Your task to perform on an android device: snooze an email in the gmail app Image 0: 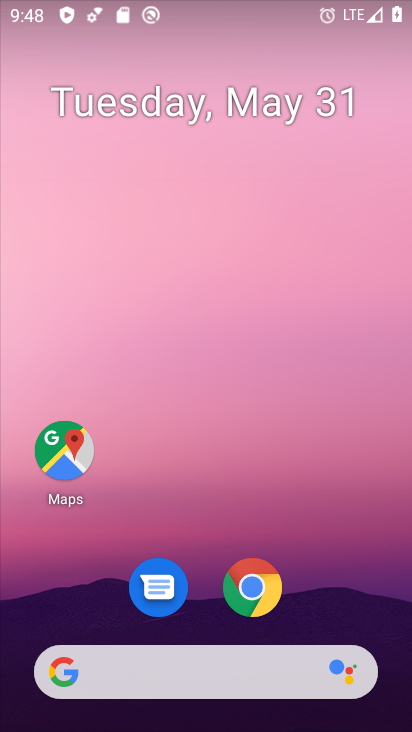
Step 0: drag from (372, 611) to (375, 232)
Your task to perform on an android device: snooze an email in the gmail app Image 1: 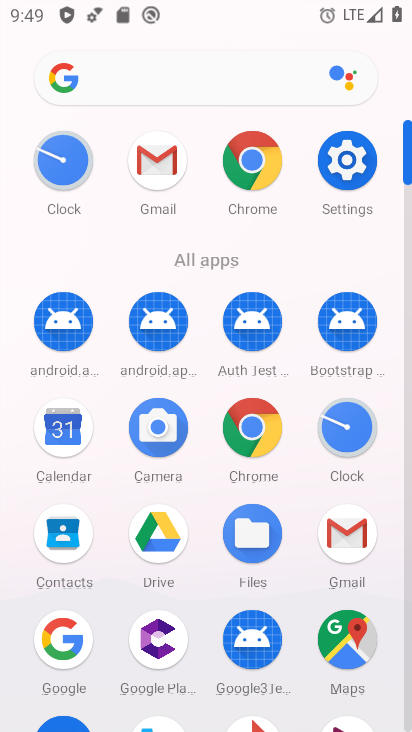
Step 1: click (354, 546)
Your task to perform on an android device: snooze an email in the gmail app Image 2: 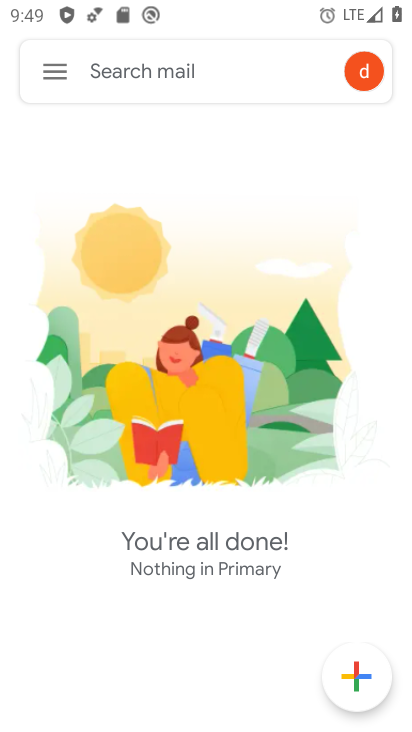
Step 2: click (50, 64)
Your task to perform on an android device: snooze an email in the gmail app Image 3: 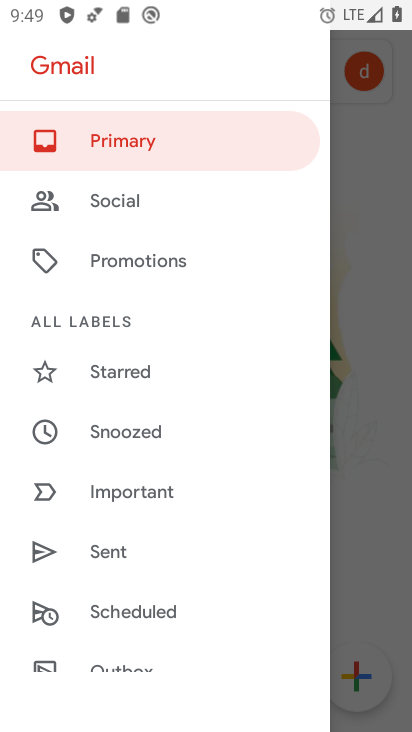
Step 3: drag from (256, 482) to (261, 344)
Your task to perform on an android device: snooze an email in the gmail app Image 4: 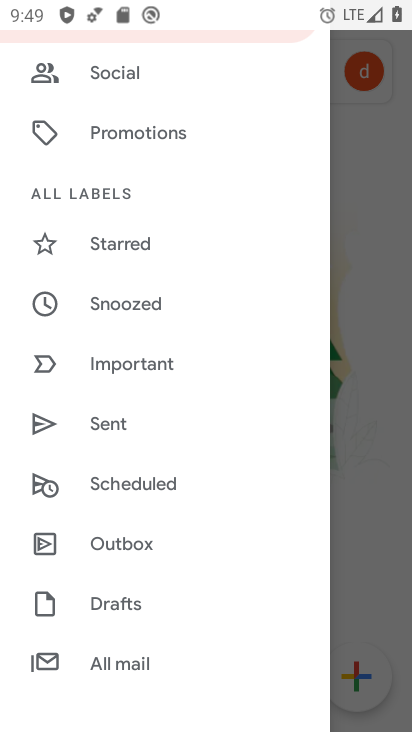
Step 4: drag from (252, 499) to (252, 319)
Your task to perform on an android device: snooze an email in the gmail app Image 5: 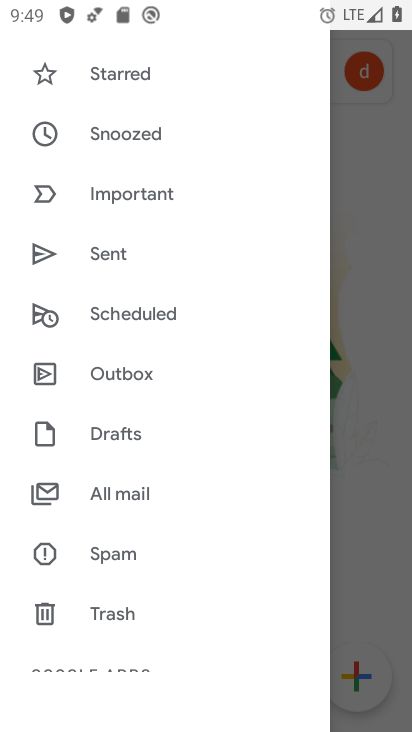
Step 5: drag from (246, 487) to (259, 351)
Your task to perform on an android device: snooze an email in the gmail app Image 6: 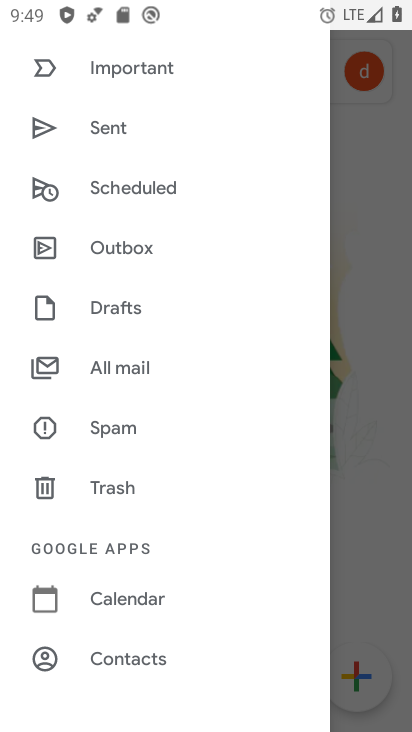
Step 6: drag from (254, 507) to (252, 350)
Your task to perform on an android device: snooze an email in the gmail app Image 7: 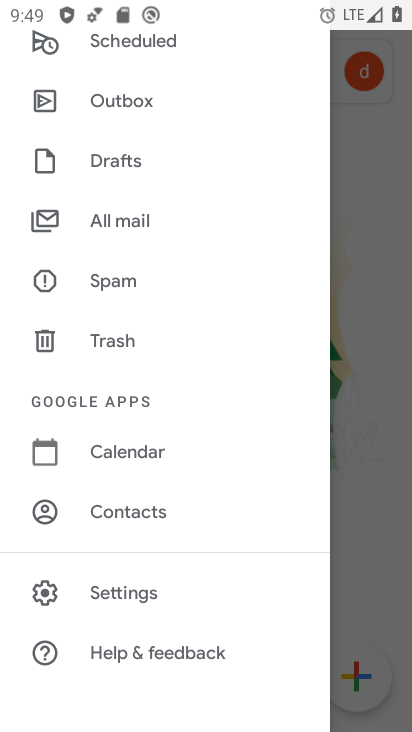
Step 7: drag from (236, 532) to (243, 386)
Your task to perform on an android device: snooze an email in the gmail app Image 8: 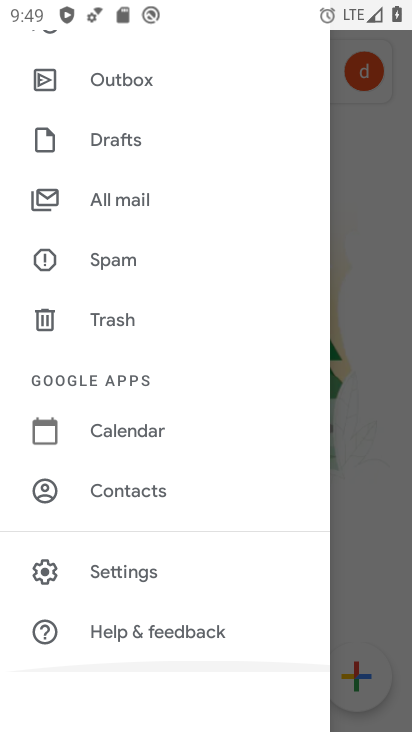
Step 8: drag from (252, 343) to (241, 444)
Your task to perform on an android device: snooze an email in the gmail app Image 9: 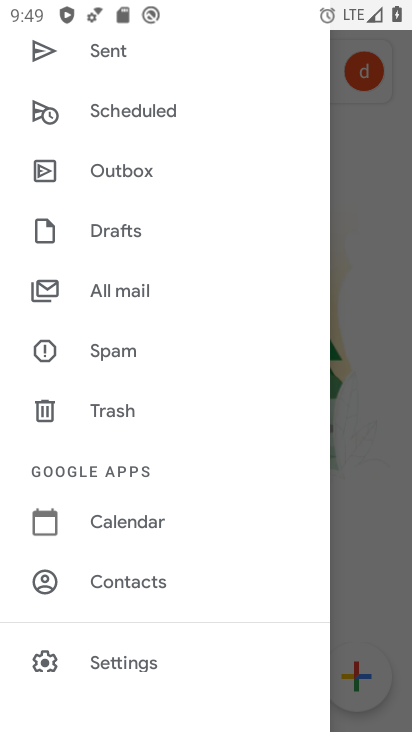
Step 9: drag from (257, 325) to (258, 417)
Your task to perform on an android device: snooze an email in the gmail app Image 10: 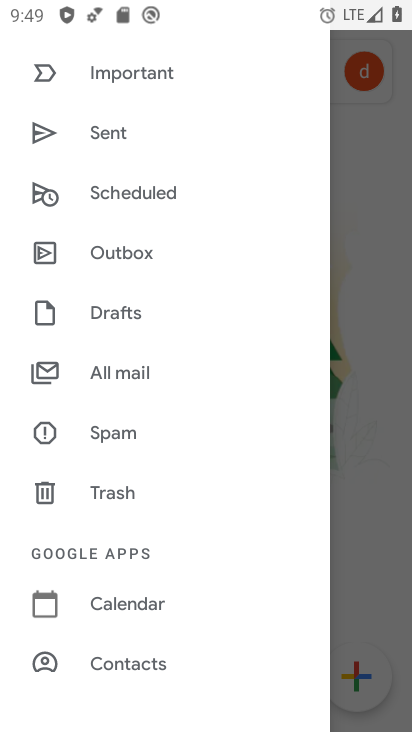
Step 10: drag from (261, 305) to (267, 410)
Your task to perform on an android device: snooze an email in the gmail app Image 11: 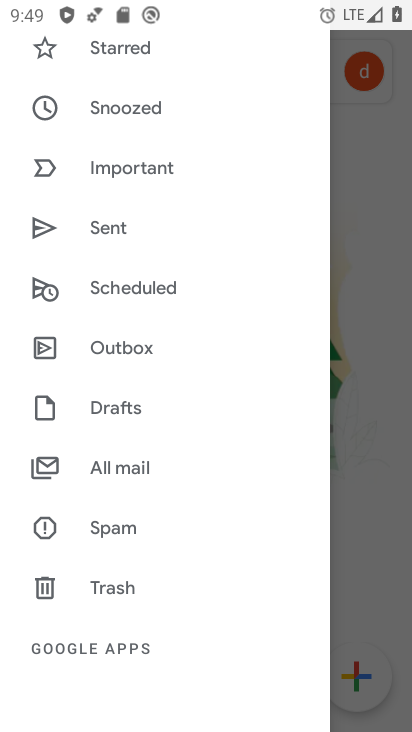
Step 11: drag from (255, 284) to (260, 406)
Your task to perform on an android device: snooze an email in the gmail app Image 12: 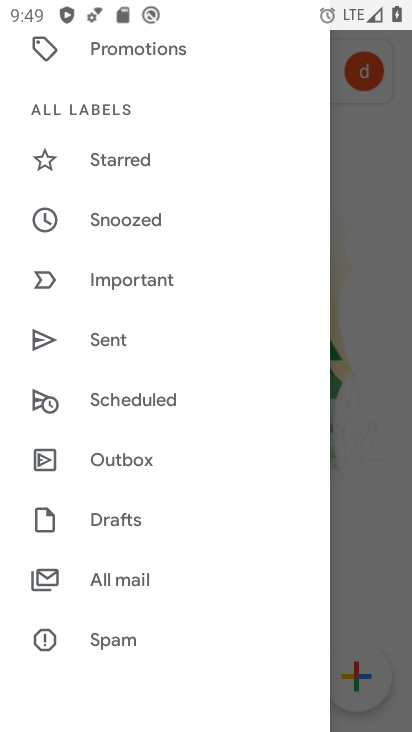
Step 12: drag from (244, 241) to (255, 486)
Your task to perform on an android device: snooze an email in the gmail app Image 13: 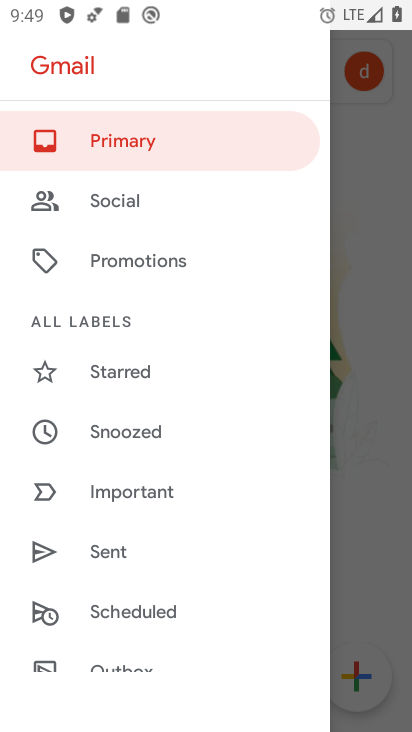
Step 13: click (192, 442)
Your task to perform on an android device: snooze an email in the gmail app Image 14: 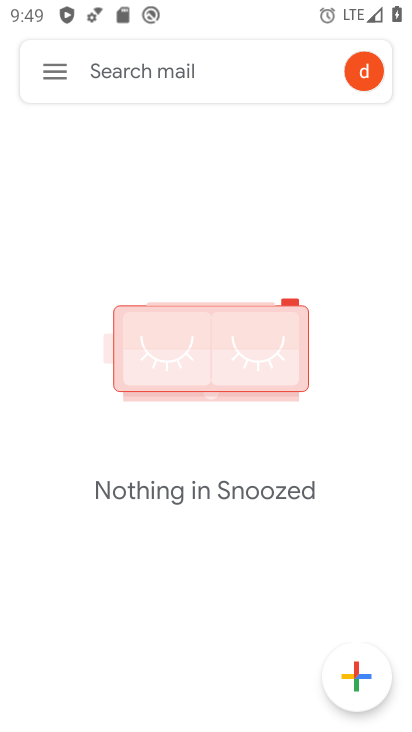
Step 14: task complete